Your task to perform on an android device: toggle notifications settings in the gmail app Image 0: 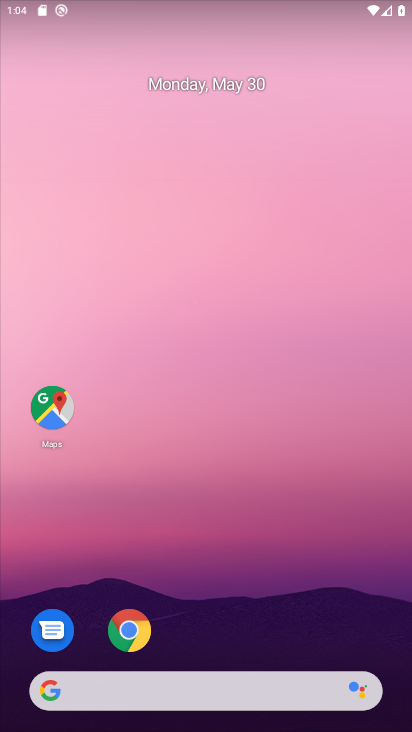
Step 0: press home button
Your task to perform on an android device: toggle notifications settings in the gmail app Image 1: 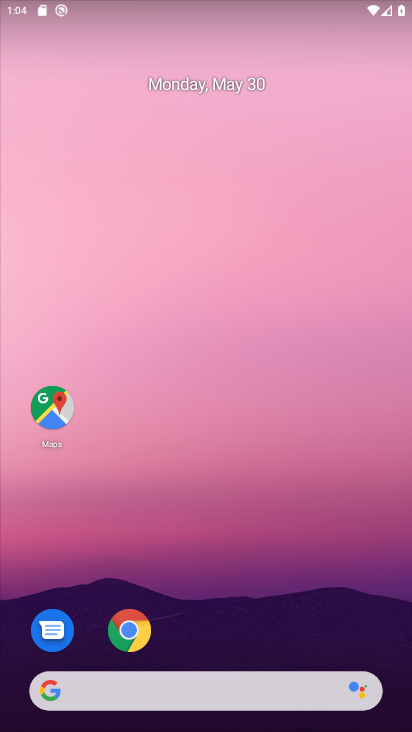
Step 1: drag from (182, 658) to (289, 206)
Your task to perform on an android device: toggle notifications settings in the gmail app Image 2: 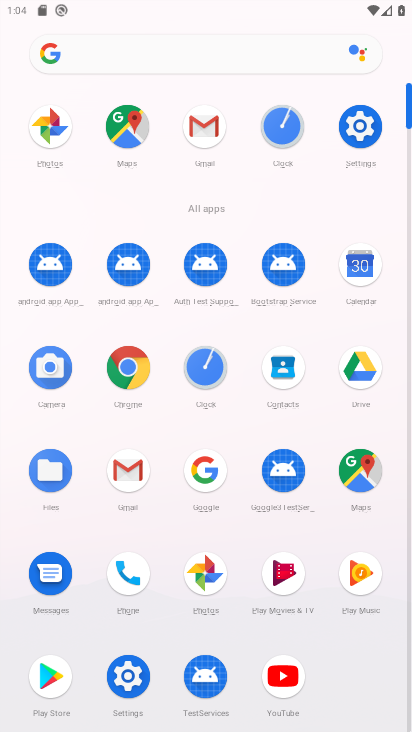
Step 2: click (199, 141)
Your task to perform on an android device: toggle notifications settings in the gmail app Image 3: 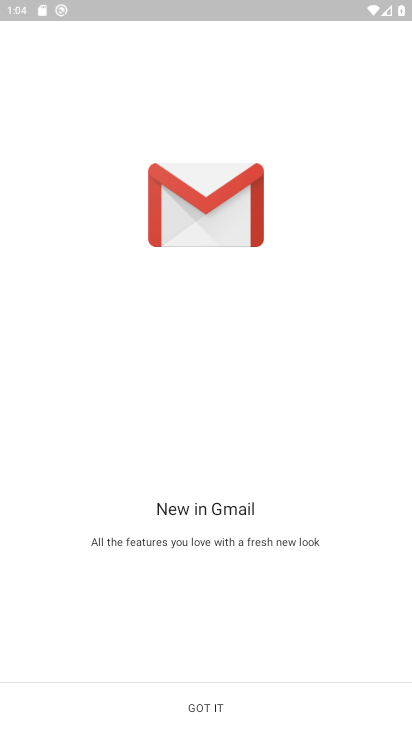
Step 3: click (210, 708)
Your task to perform on an android device: toggle notifications settings in the gmail app Image 4: 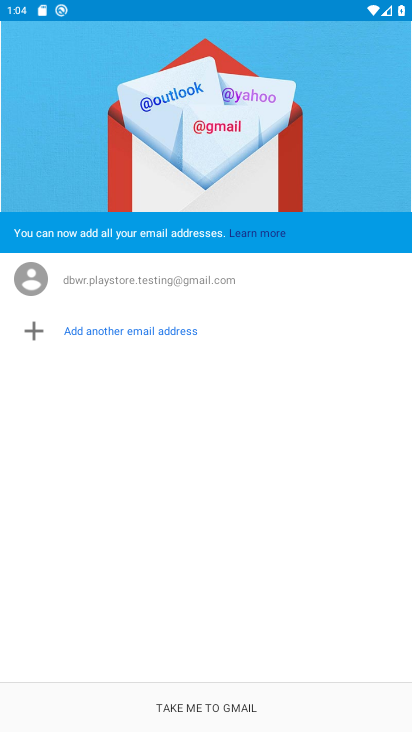
Step 4: click (210, 708)
Your task to perform on an android device: toggle notifications settings in the gmail app Image 5: 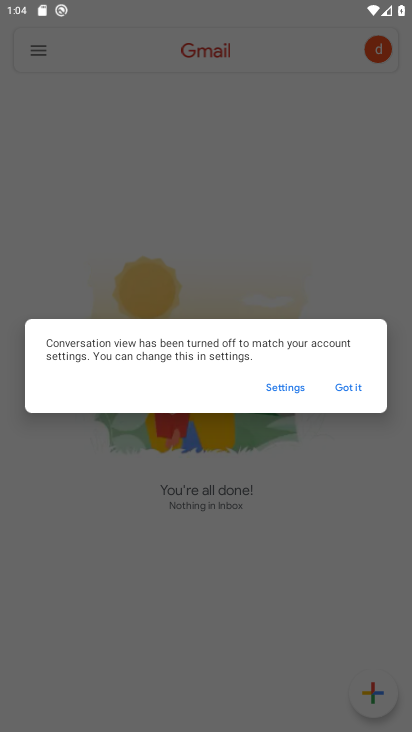
Step 5: click (360, 381)
Your task to perform on an android device: toggle notifications settings in the gmail app Image 6: 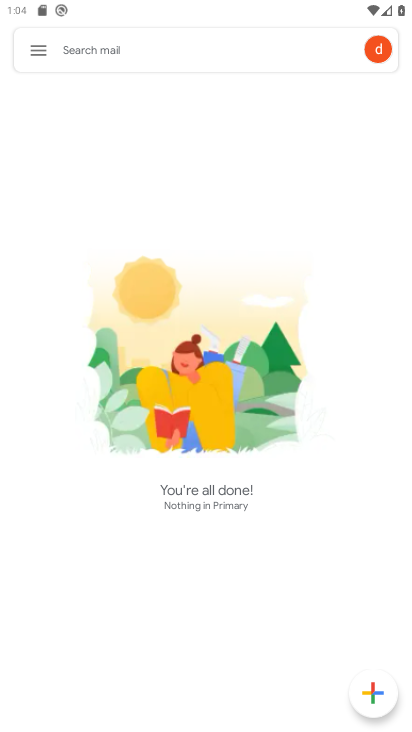
Step 6: click (34, 54)
Your task to perform on an android device: toggle notifications settings in the gmail app Image 7: 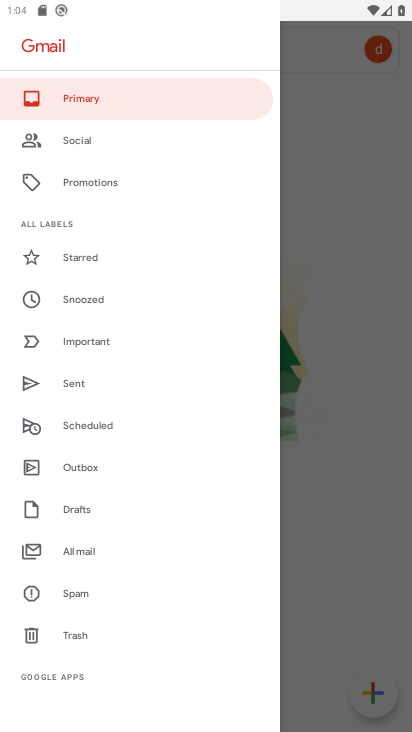
Step 7: drag from (180, 588) to (240, 165)
Your task to perform on an android device: toggle notifications settings in the gmail app Image 8: 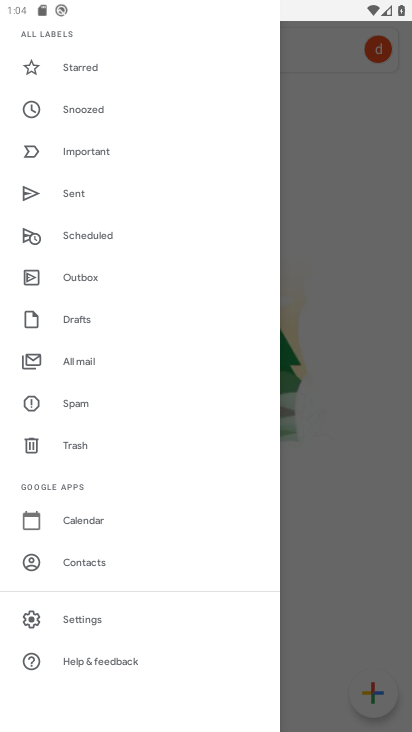
Step 8: click (66, 623)
Your task to perform on an android device: toggle notifications settings in the gmail app Image 9: 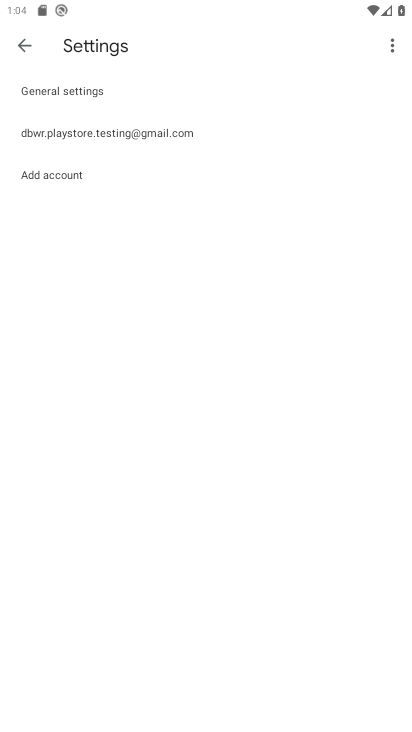
Step 9: click (168, 141)
Your task to perform on an android device: toggle notifications settings in the gmail app Image 10: 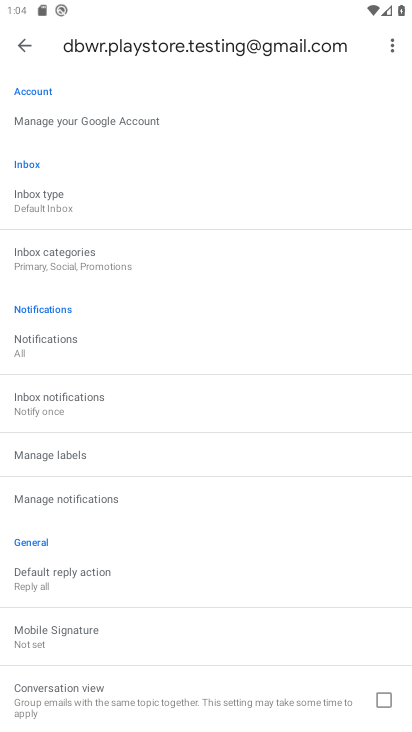
Step 10: click (43, 353)
Your task to perform on an android device: toggle notifications settings in the gmail app Image 11: 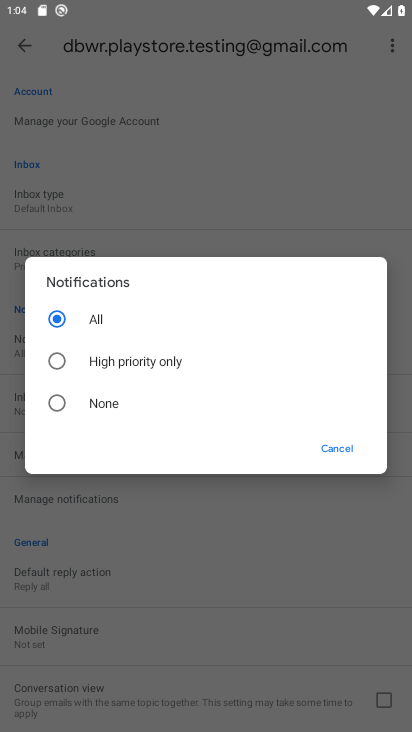
Step 11: click (56, 405)
Your task to perform on an android device: toggle notifications settings in the gmail app Image 12: 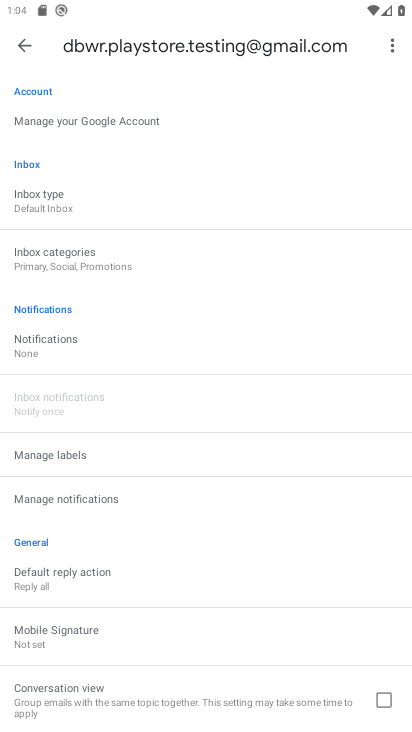
Step 12: task complete